Your task to perform on an android device: toggle airplane mode Image 0: 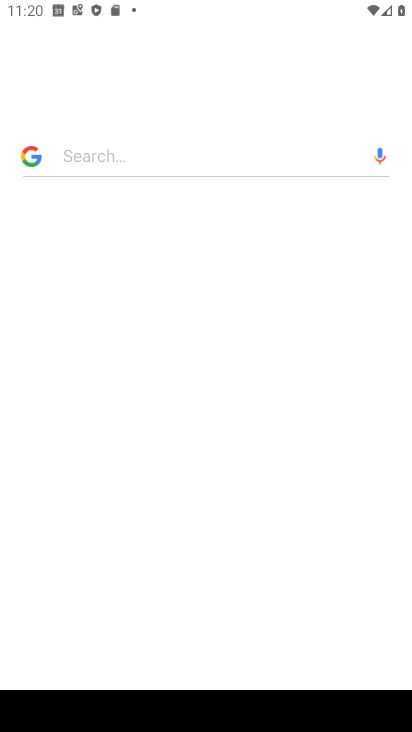
Step 0: drag from (301, 557) to (311, 333)
Your task to perform on an android device: toggle airplane mode Image 1: 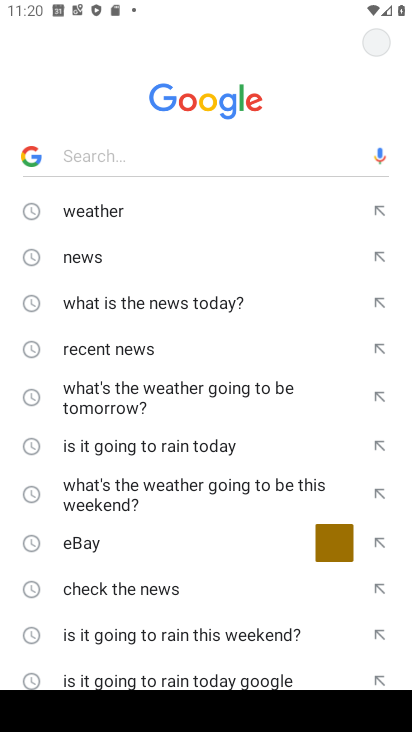
Step 1: press home button
Your task to perform on an android device: toggle airplane mode Image 2: 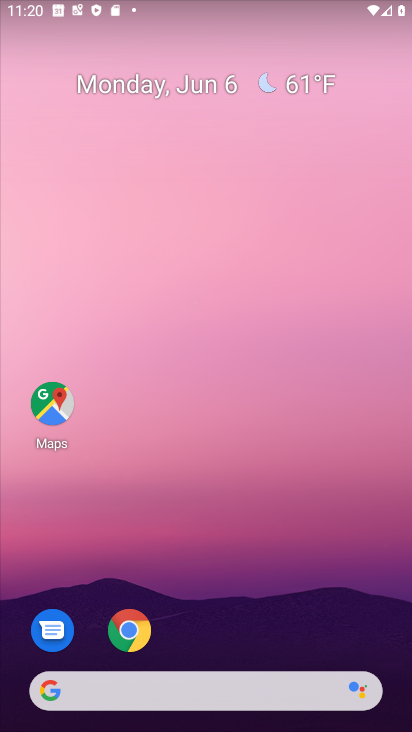
Step 2: drag from (318, 420) to (315, 196)
Your task to perform on an android device: toggle airplane mode Image 3: 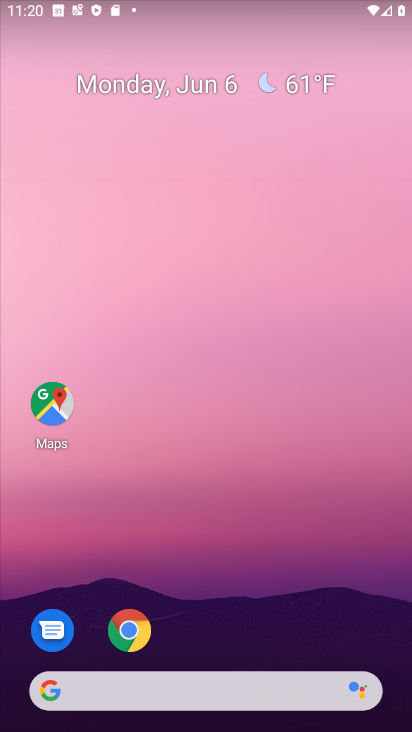
Step 3: drag from (311, 562) to (310, 163)
Your task to perform on an android device: toggle airplane mode Image 4: 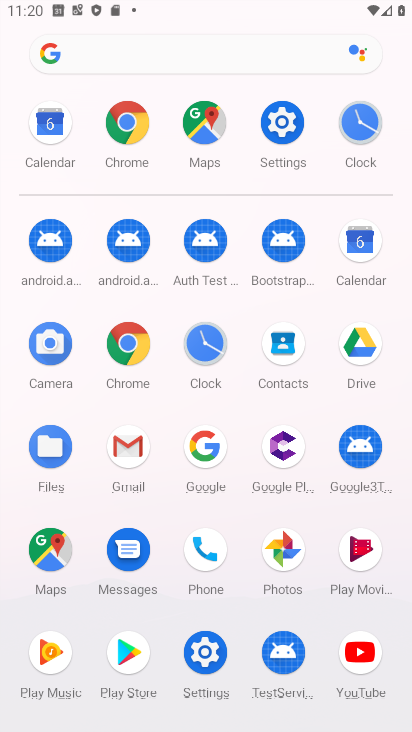
Step 4: click (205, 647)
Your task to perform on an android device: toggle airplane mode Image 5: 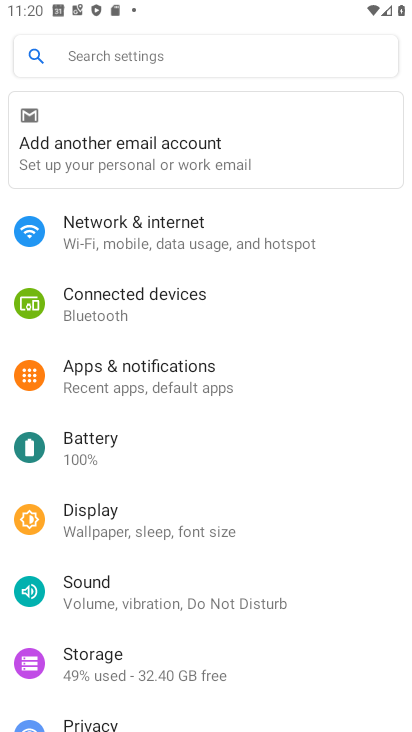
Step 5: click (215, 217)
Your task to perform on an android device: toggle airplane mode Image 6: 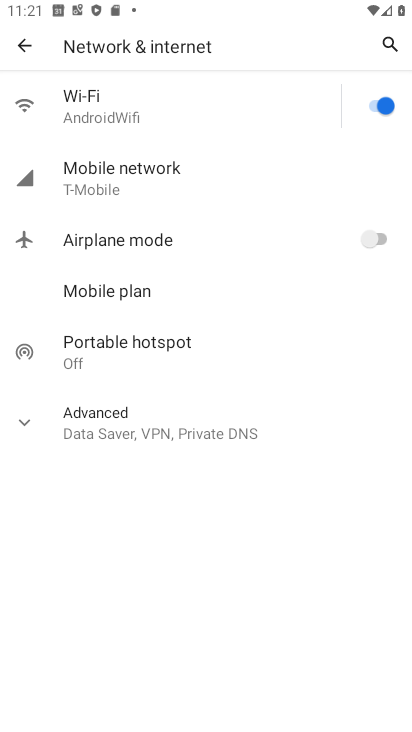
Step 6: click (378, 242)
Your task to perform on an android device: toggle airplane mode Image 7: 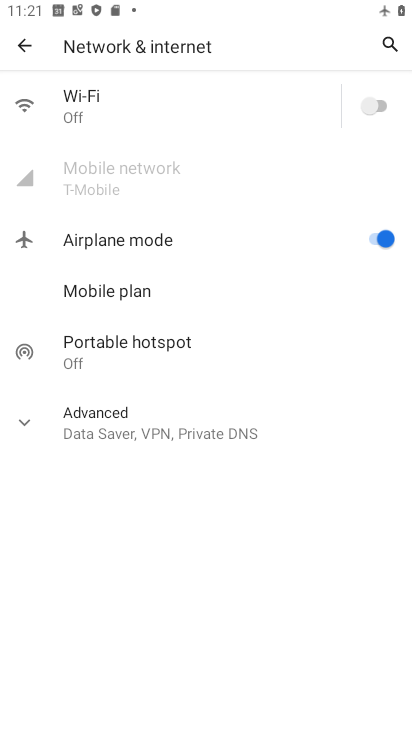
Step 7: task complete